Your task to perform on an android device: Go to wifi settings Image 0: 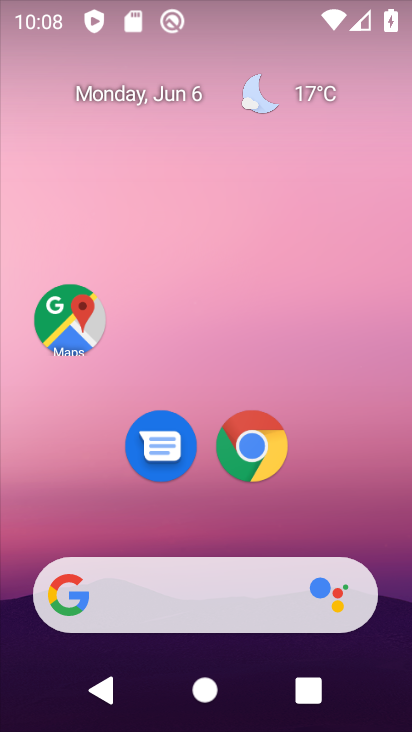
Step 0: drag from (238, 10) to (250, 681)
Your task to perform on an android device: Go to wifi settings Image 1: 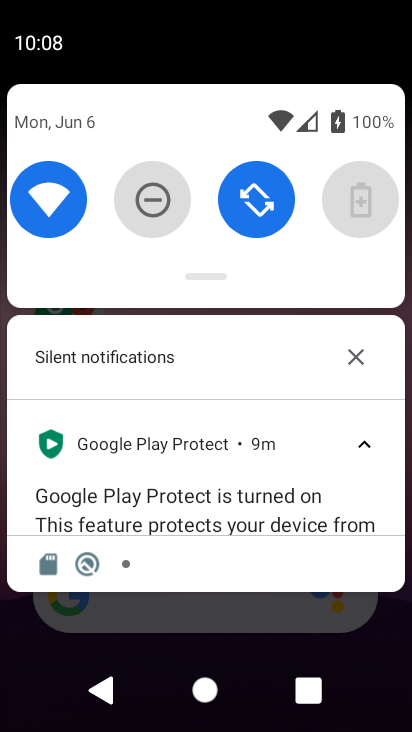
Step 1: click (49, 191)
Your task to perform on an android device: Go to wifi settings Image 2: 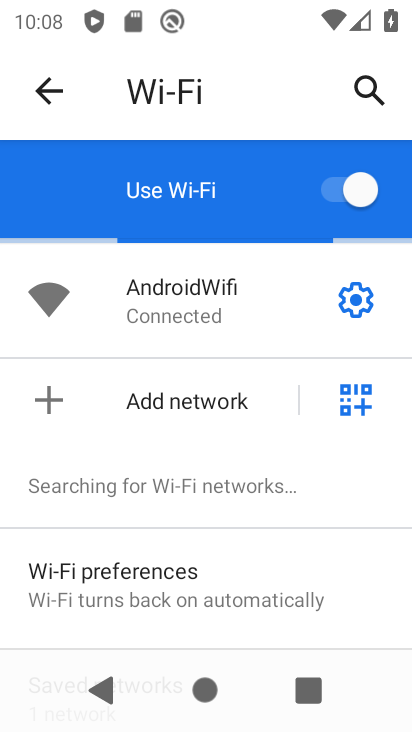
Step 2: task complete